Your task to perform on an android device: open a bookmark in the chrome app Image 0: 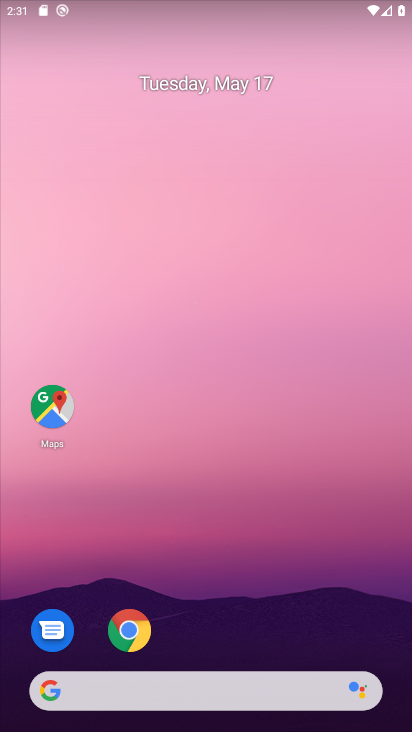
Step 0: click (138, 623)
Your task to perform on an android device: open a bookmark in the chrome app Image 1: 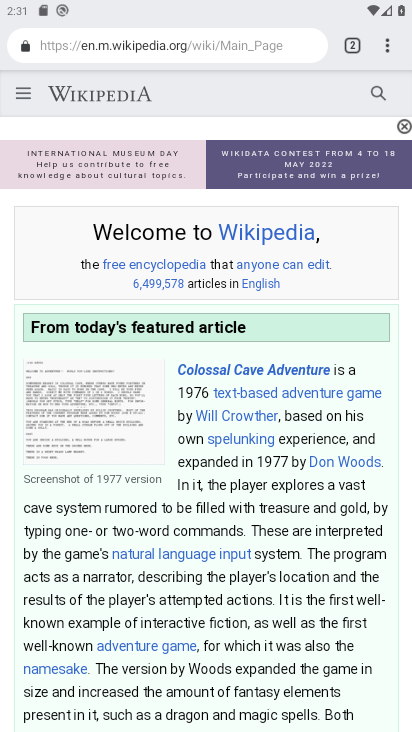
Step 1: click (389, 36)
Your task to perform on an android device: open a bookmark in the chrome app Image 2: 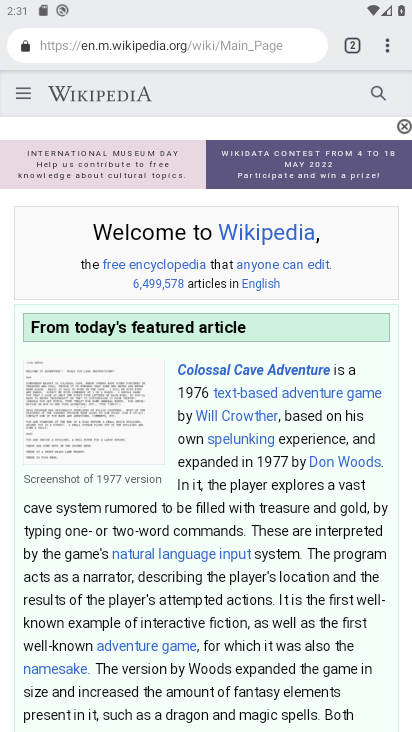
Step 2: click (401, 41)
Your task to perform on an android device: open a bookmark in the chrome app Image 3: 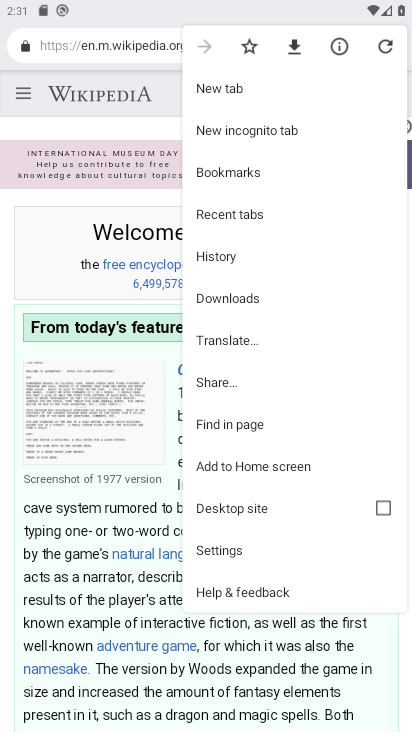
Step 3: click (231, 169)
Your task to perform on an android device: open a bookmark in the chrome app Image 4: 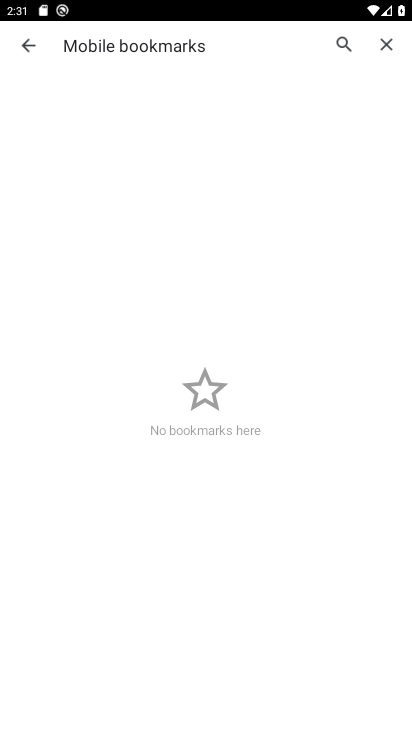
Step 4: task complete